Your task to perform on an android device: turn on notifications settings in the gmail app Image 0: 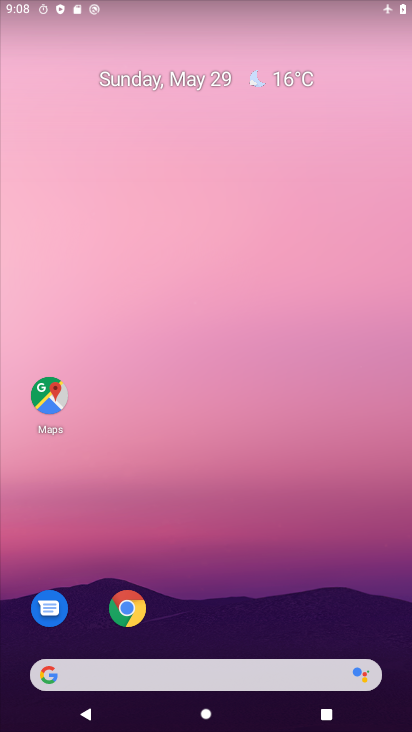
Step 0: drag from (210, 593) to (231, 1)
Your task to perform on an android device: turn on notifications settings in the gmail app Image 1: 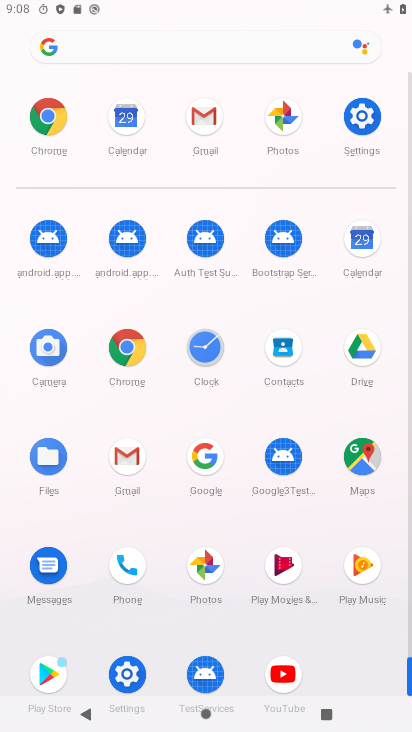
Step 1: click (204, 155)
Your task to perform on an android device: turn on notifications settings in the gmail app Image 2: 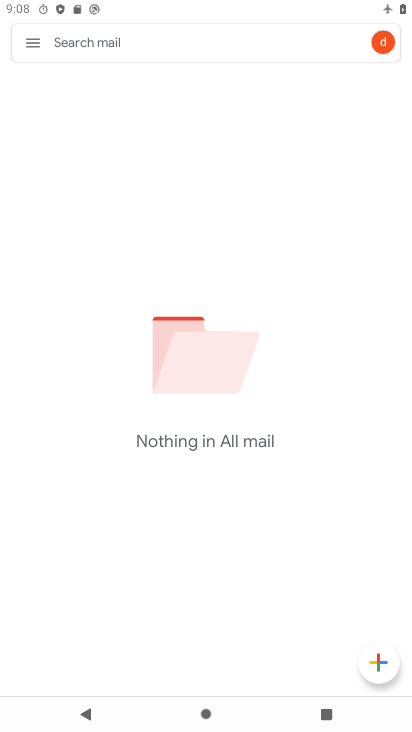
Step 2: click (32, 43)
Your task to perform on an android device: turn on notifications settings in the gmail app Image 3: 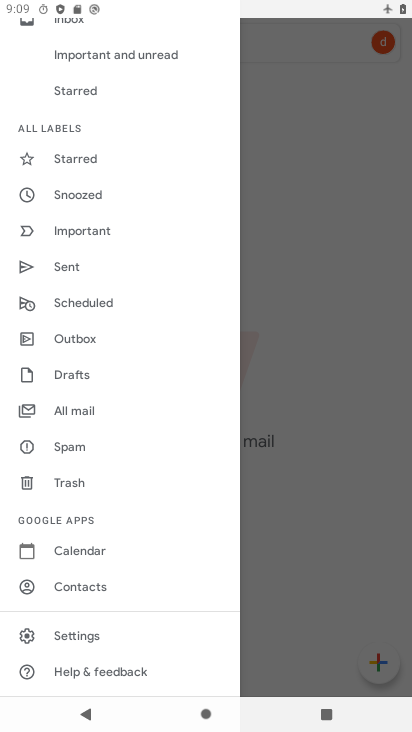
Step 3: click (64, 636)
Your task to perform on an android device: turn on notifications settings in the gmail app Image 4: 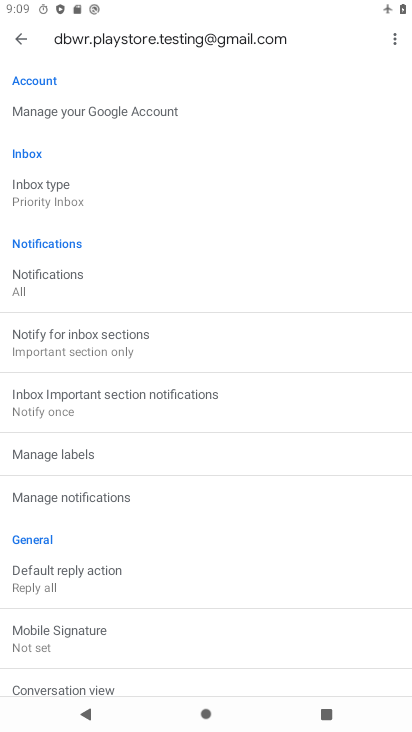
Step 4: click (58, 502)
Your task to perform on an android device: turn on notifications settings in the gmail app Image 5: 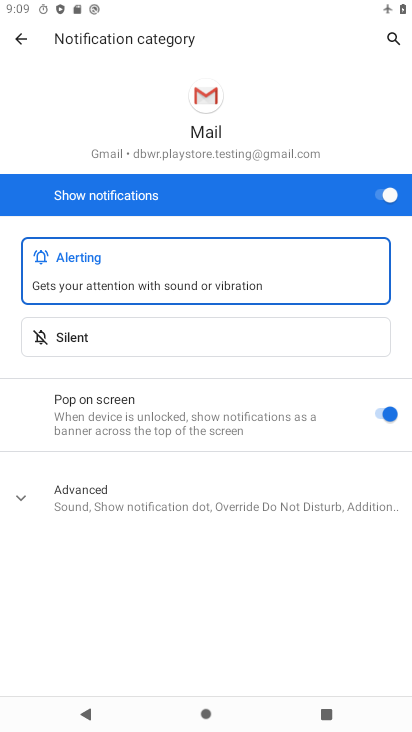
Step 5: task complete